Your task to perform on an android device: Open privacy settings Image 0: 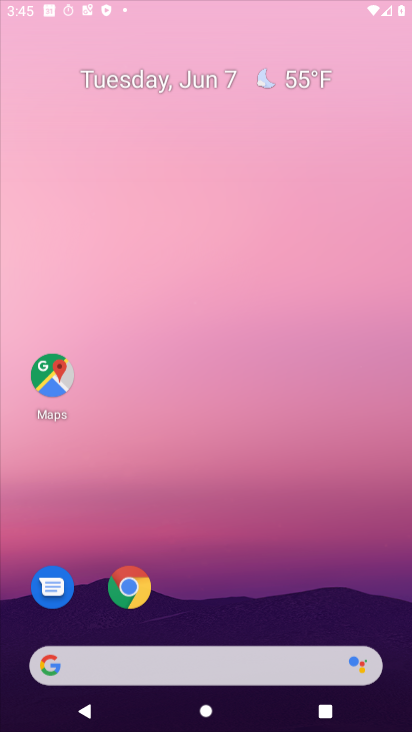
Step 0: press home button
Your task to perform on an android device: Open privacy settings Image 1: 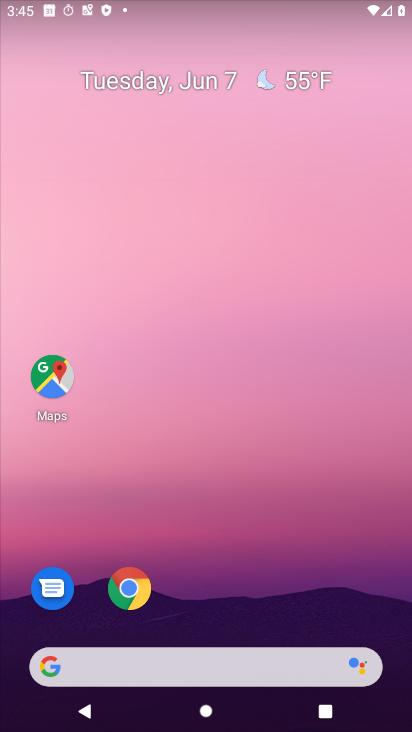
Step 1: drag from (251, 627) to (236, 66)
Your task to perform on an android device: Open privacy settings Image 2: 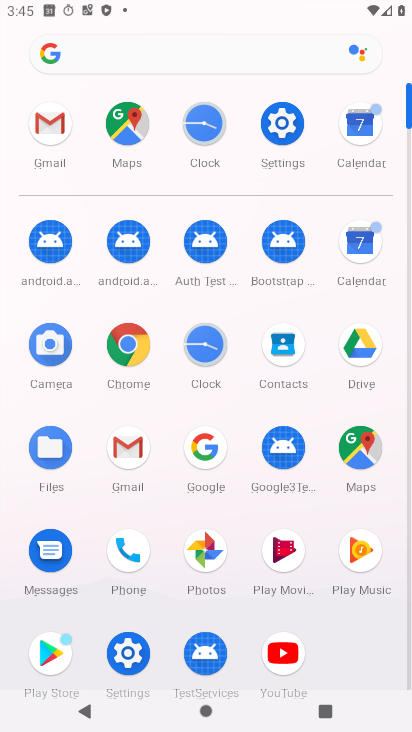
Step 2: click (289, 122)
Your task to perform on an android device: Open privacy settings Image 3: 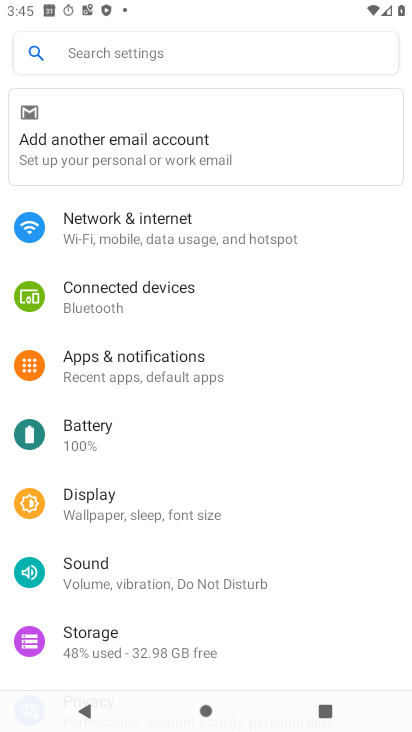
Step 3: drag from (246, 505) to (292, 159)
Your task to perform on an android device: Open privacy settings Image 4: 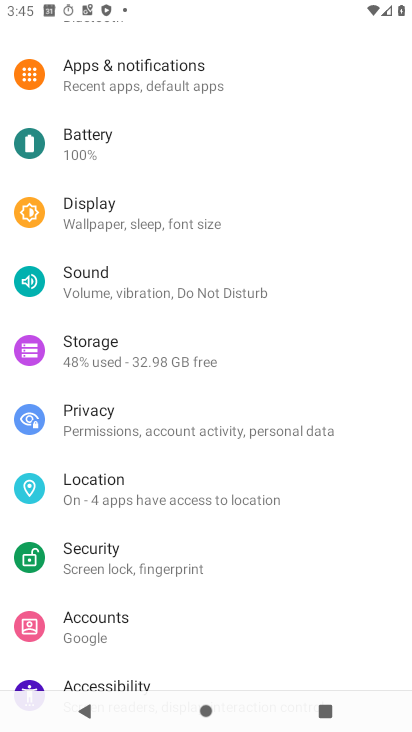
Step 4: click (91, 420)
Your task to perform on an android device: Open privacy settings Image 5: 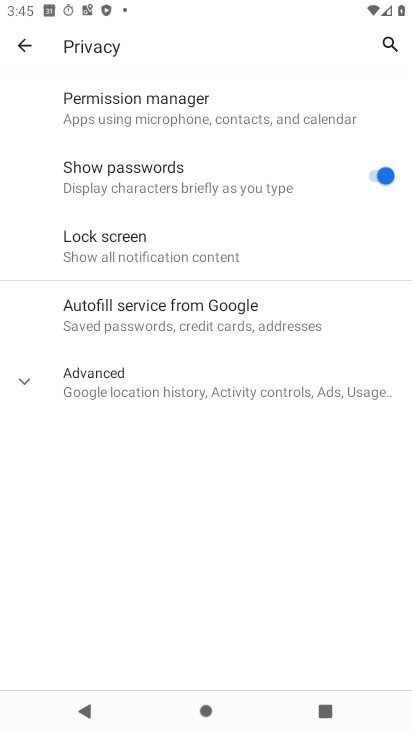
Step 5: task complete